Your task to perform on an android device: turn on the 12-hour format for clock Image 0: 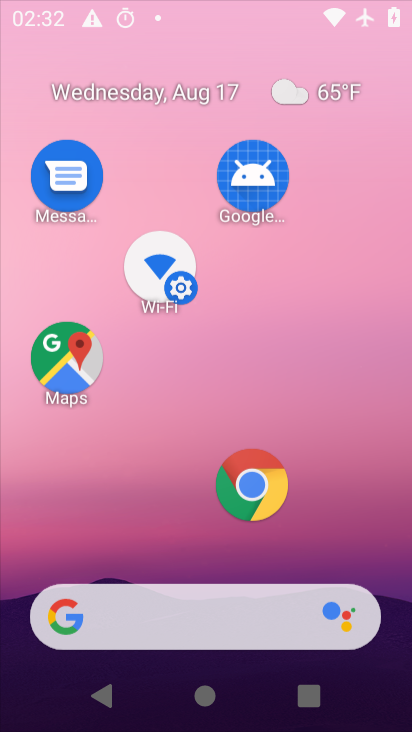
Step 0: press home button
Your task to perform on an android device: turn on the 12-hour format for clock Image 1: 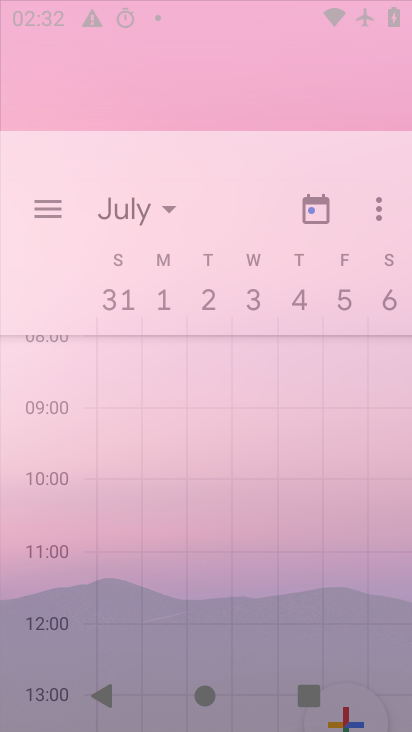
Step 1: drag from (410, 20) to (382, 0)
Your task to perform on an android device: turn on the 12-hour format for clock Image 2: 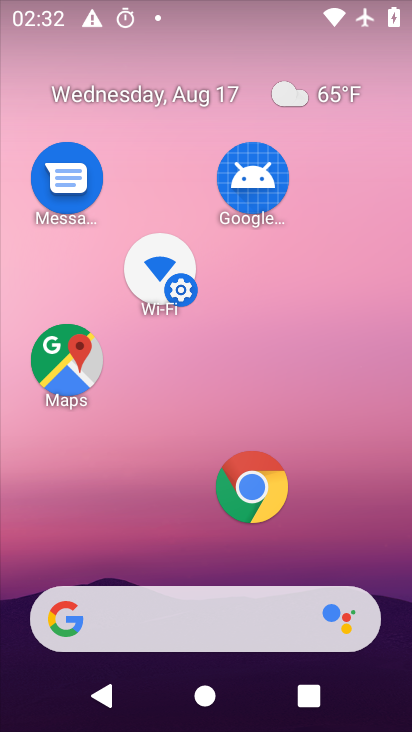
Step 2: drag from (326, 500) to (349, 55)
Your task to perform on an android device: turn on the 12-hour format for clock Image 3: 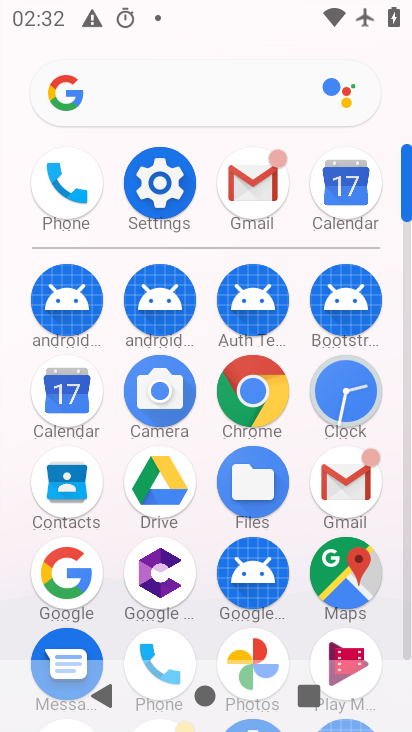
Step 3: click (163, 188)
Your task to perform on an android device: turn on the 12-hour format for clock Image 4: 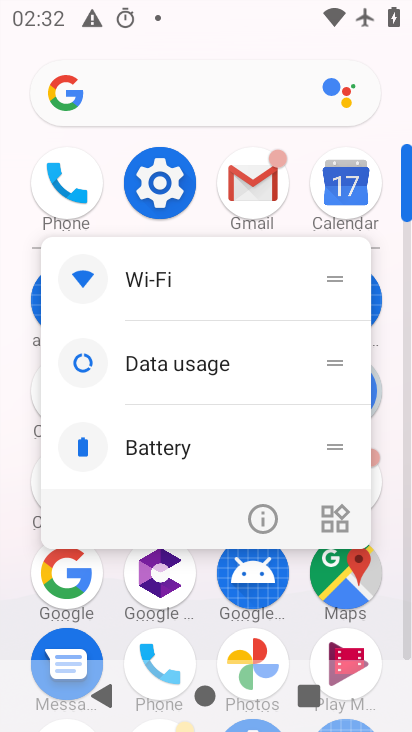
Step 4: click (150, 188)
Your task to perform on an android device: turn on the 12-hour format for clock Image 5: 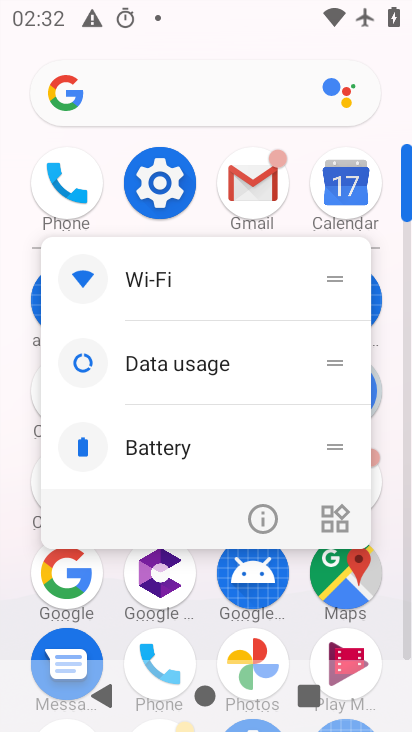
Step 5: click (144, 204)
Your task to perform on an android device: turn on the 12-hour format for clock Image 6: 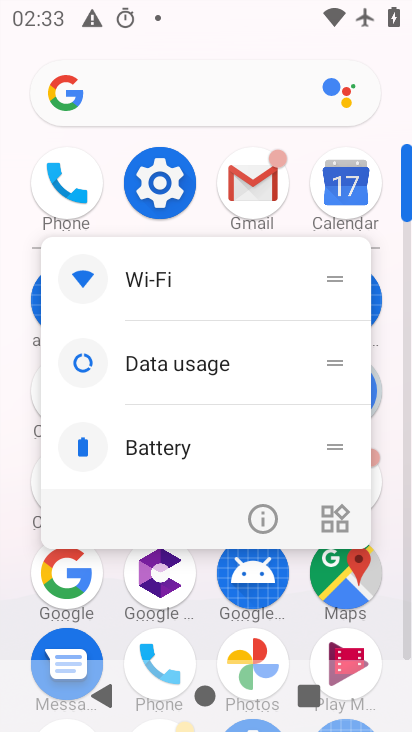
Step 6: click (143, 189)
Your task to perform on an android device: turn on the 12-hour format for clock Image 7: 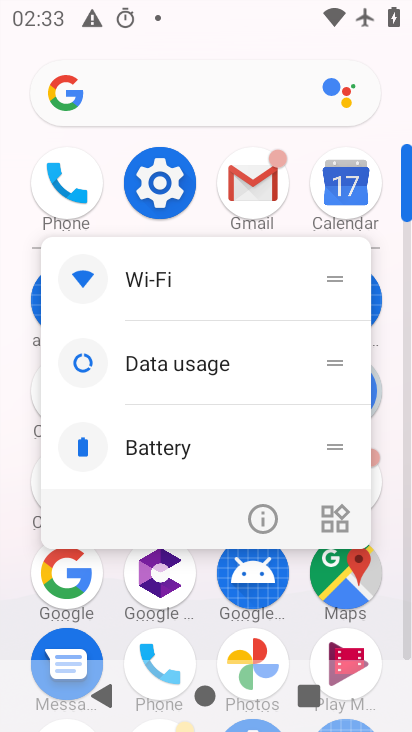
Step 7: click (151, 192)
Your task to perform on an android device: turn on the 12-hour format for clock Image 8: 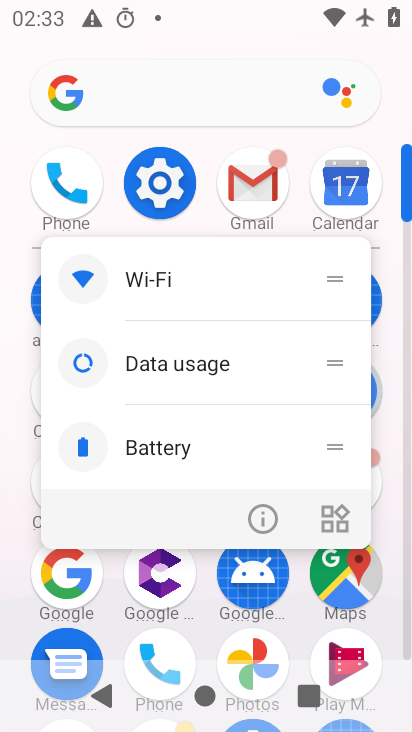
Step 8: click (167, 187)
Your task to perform on an android device: turn on the 12-hour format for clock Image 9: 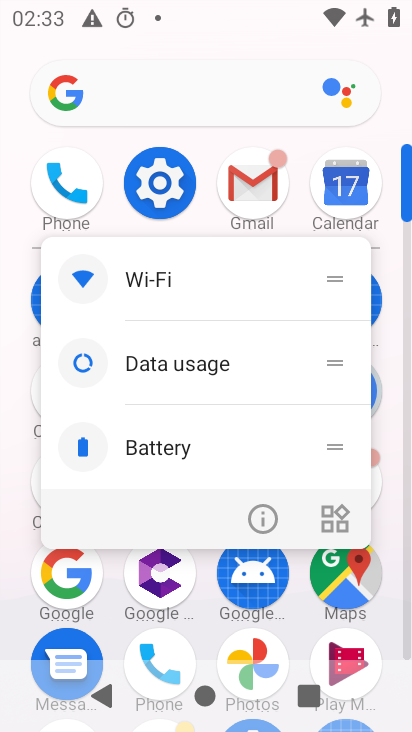
Step 9: click (172, 182)
Your task to perform on an android device: turn on the 12-hour format for clock Image 10: 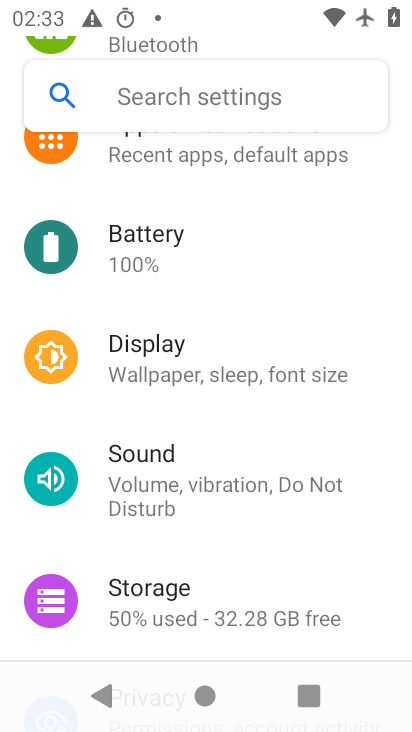
Step 10: drag from (357, 628) to (409, 76)
Your task to perform on an android device: turn on the 12-hour format for clock Image 11: 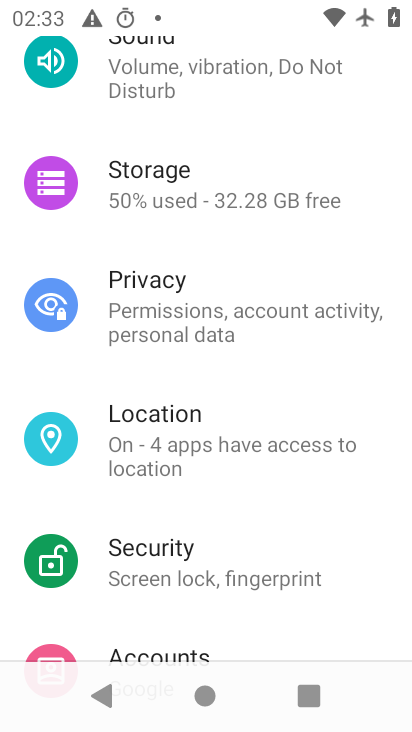
Step 11: drag from (310, 642) to (325, 8)
Your task to perform on an android device: turn on the 12-hour format for clock Image 12: 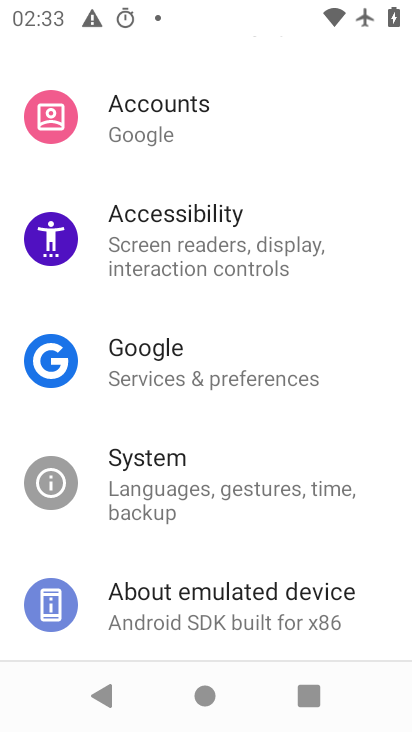
Step 12: click (137, 480)
Your task to perform on an android device: turn on the 12-hour format for clock Image 13: 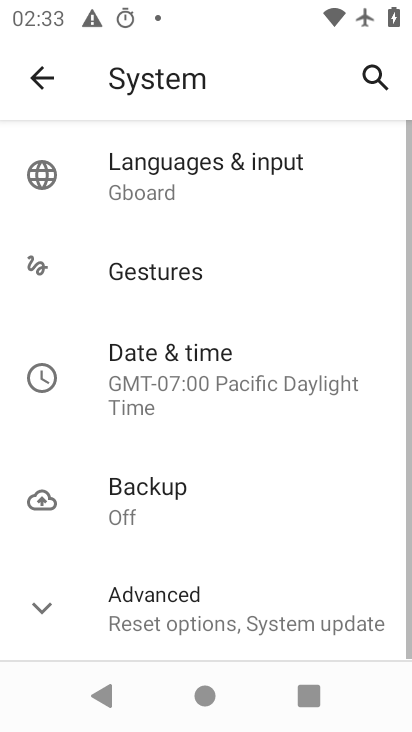
Step 13: click (212, 390)
Your task to perform on an android device: turn on the 12-hour format for clock Image 14: 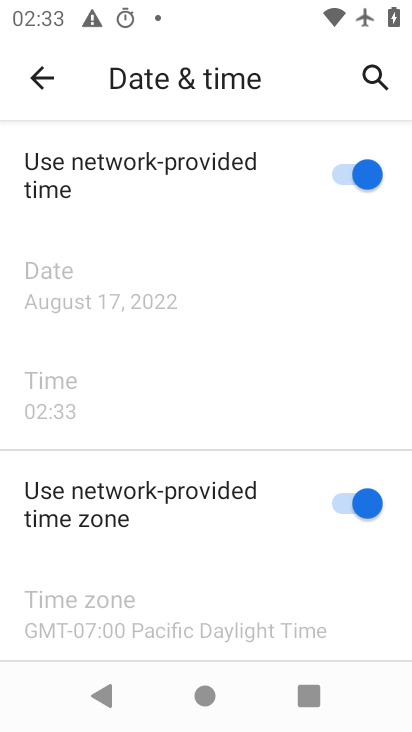
Step 14: click (368, 509)
Your task to perform on an android device: turn on the 12-hour format for clock Image 15: 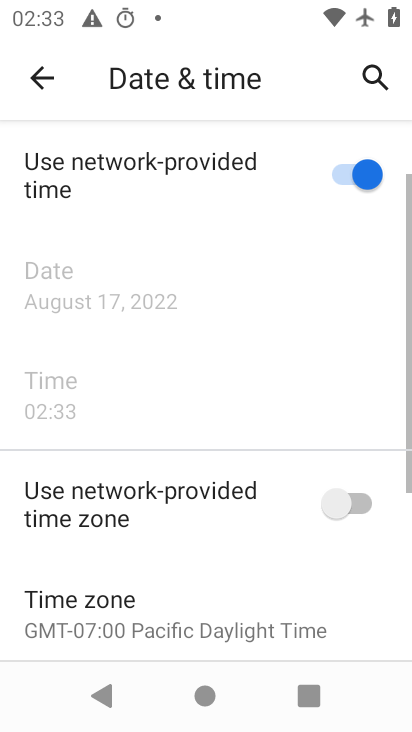
Step 15: drag from (357, 580) to (365, 273)
Your task to perform on an android device: turn on the 12-hour format for clock Image 16: 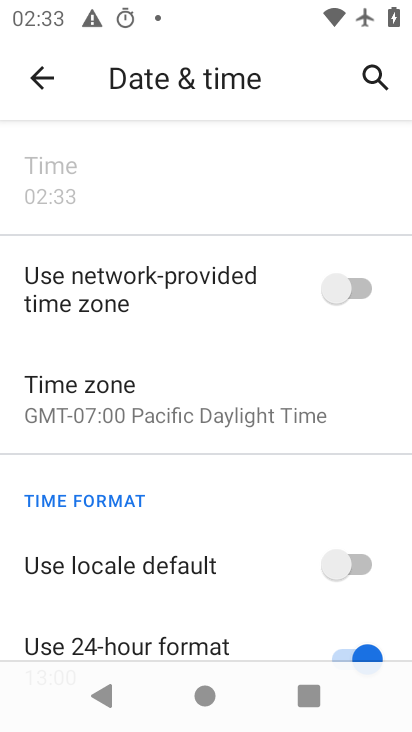
Step 16: drag from (290, 607) to (282, 358)
Your task to perform on an android device: turn on the 12-hour format for clock Image 17: 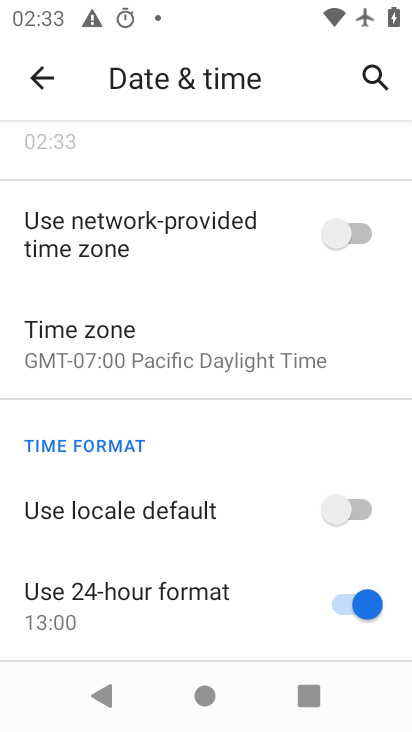
Step 17: click (374, 597)
Your task to perform on an android device: turn on the 12-hour format for clock Image 18: 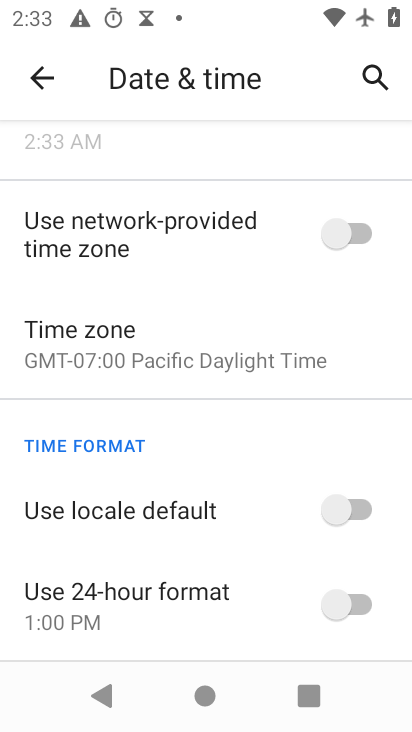
Step 18: task complete